Your task to perform on an android device: turn smart compose on in the gmail app Image 0: 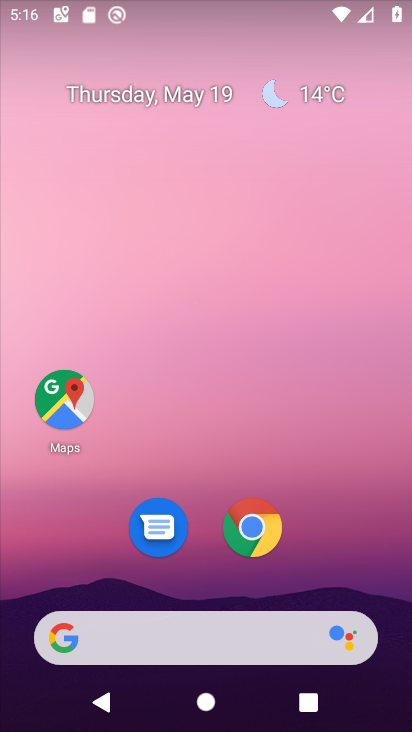
Step 0: drag from (338, 552) to (254, 43)
Your task to perform on an android device: turn smart compose on in the gmail app Image 1: 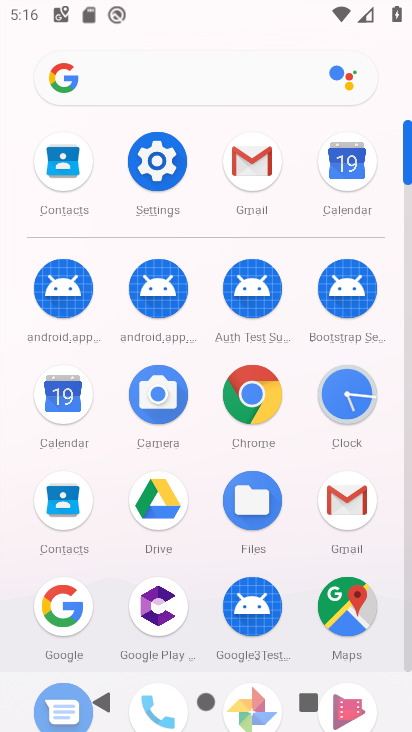
Step 1: click (228, 177)
Your task to perform on an android device: turn smart compose on in the gmail app Image 2: 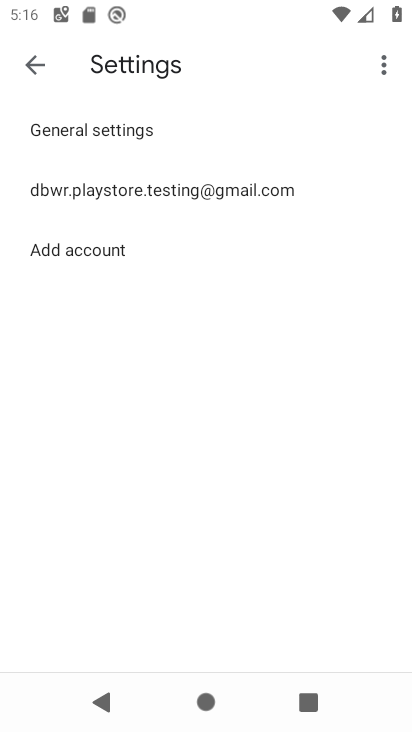
Step 2: click (123, 190)
Your task to perform on an android device: turn smart compose on in the gmail app Image 3: 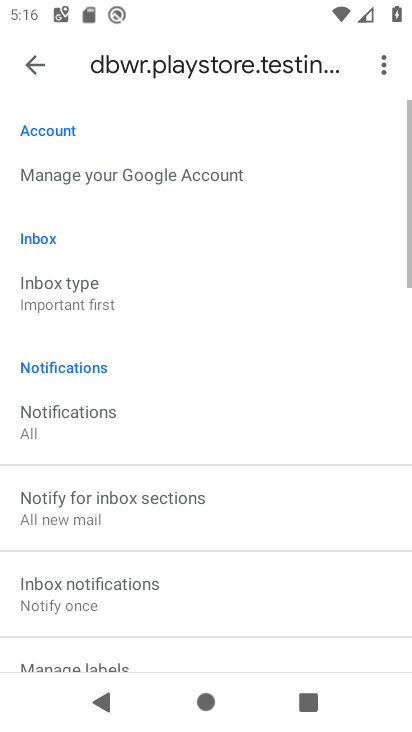
Step 3: task complete